Your task to perform on an android device: turn off translation in the chrome app Image 0: 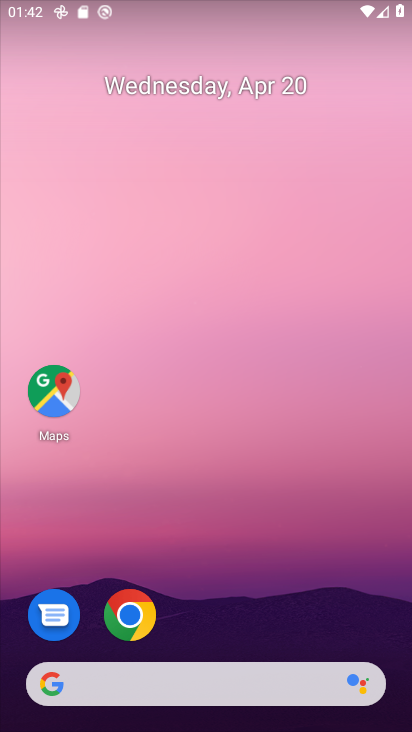
Step 0: click (128, 607)
Your task to perform on an android device: turn off translation in the chrome app Image 1: 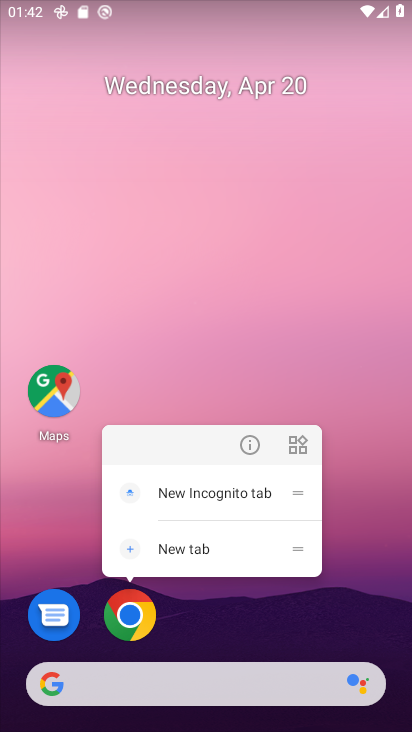
Step 1: click (128, 607)
Your task to perform on an android device: turn off translation in the chrome app Image 2: 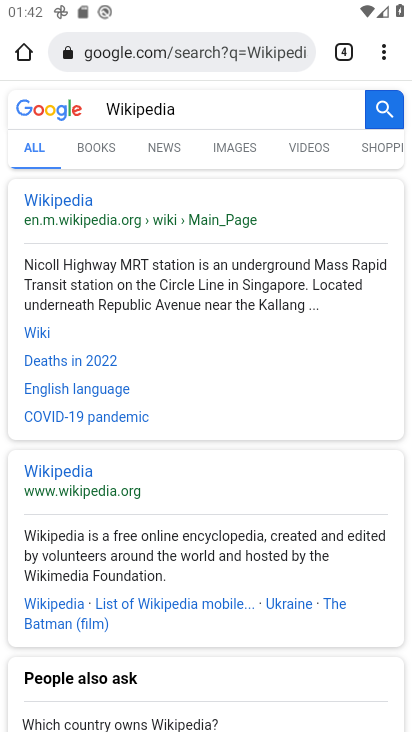
Step 2: click (349, 46)
Your task to perform on an android device: turn off translation in the chrome app Image 3: 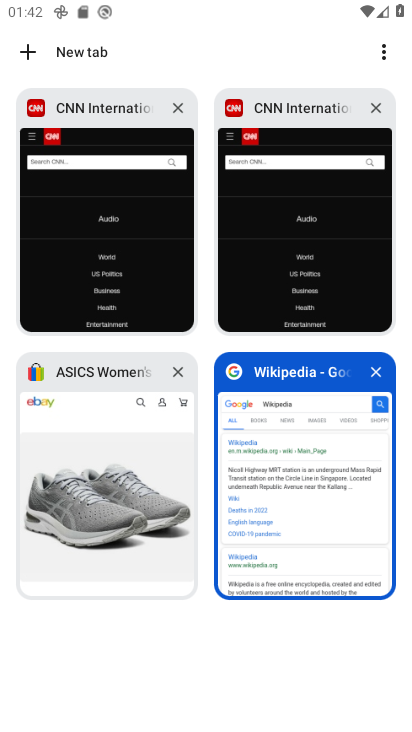
Step 3: click (369, 371)
Your task to perform on an android device: turn off translation in the chrome app Image 4: 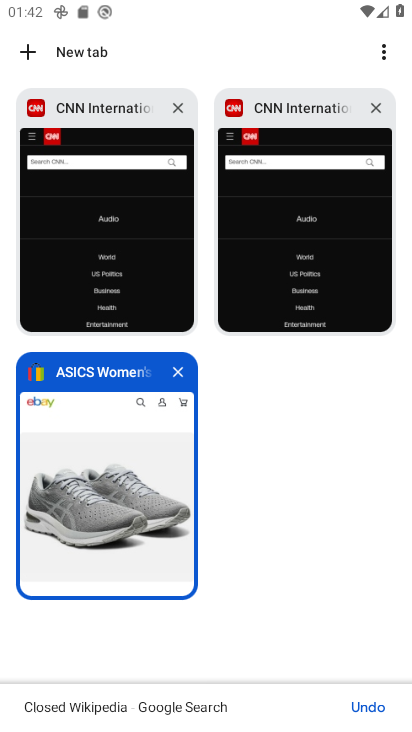
Step 4: click (180, 371)
Your task to perform on an android device: turn off translation in the chrome app Image 5: 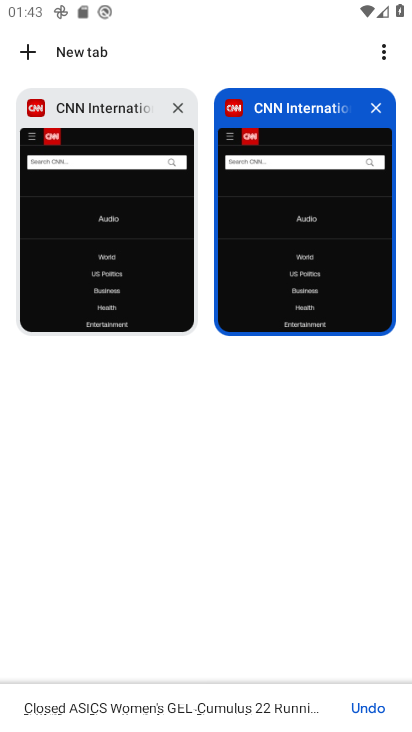
Step 5: click (377, 112)
Your task to perform on an android device: turn off translation in the chrome app Image 6: 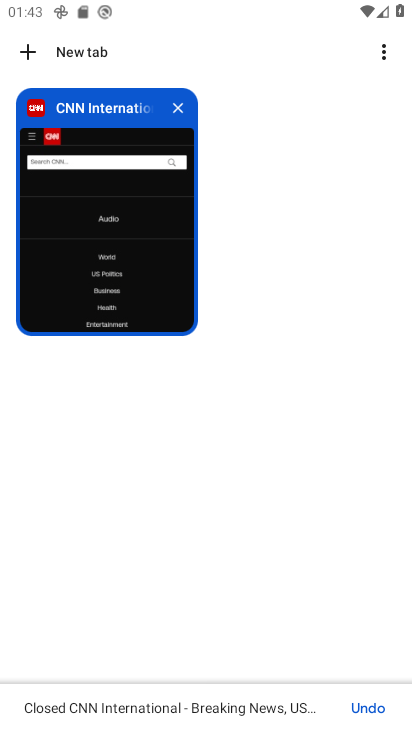
Step 6: click (175, 105)
Your task to perform on an android device: turn off translation in the chrome app Image 7: 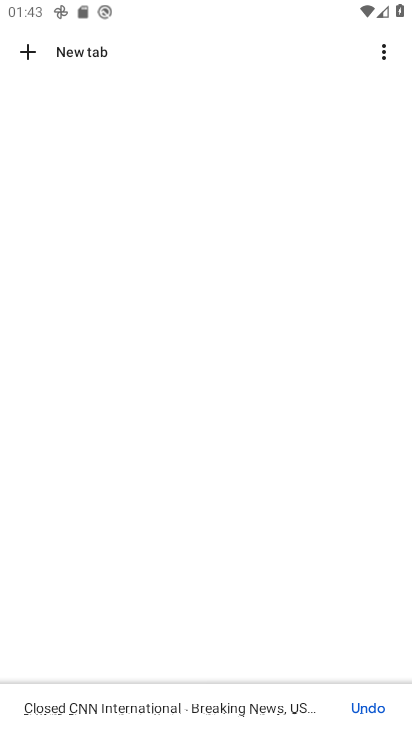
Step 7: click (28, 53)
Your task to perform on an android device: turn off translation in the chrome app Image 8: 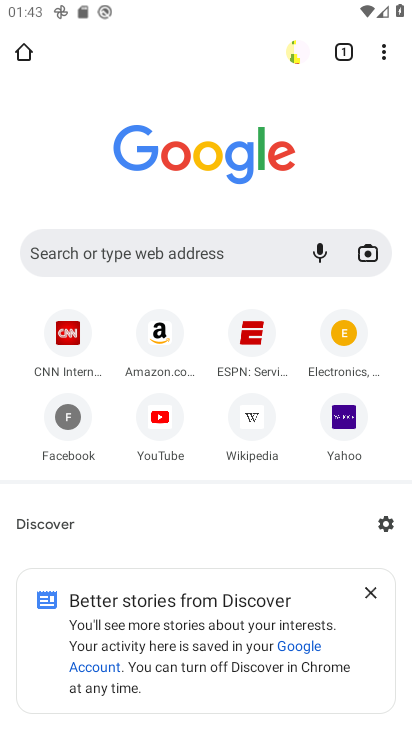
Step 8: click (171, 253)
Your task to perform on an android device: turn off translation in the chrome app Image 9: 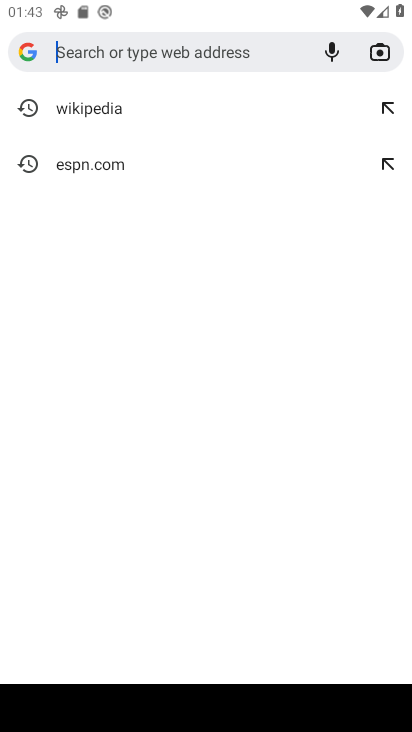
Step 9: press back button
Your task to perform on an android device: turn off translation in the chrome app Image 10: 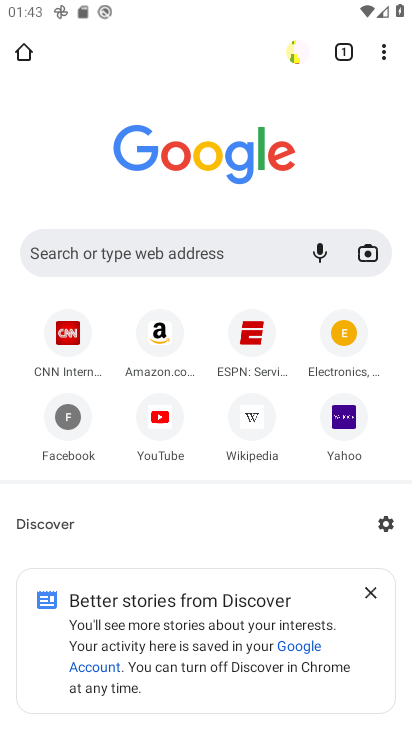
Step 10: click (381, 41)
Your task to perform on an android device: turn off translation in the chrome app Image 11: 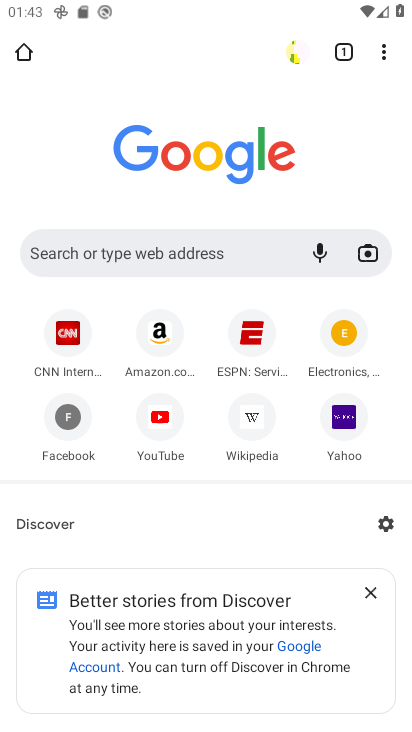
Step 11: click (381, 46)
Your task to perform on an android device: turn off translation in the chrome app Image 12: 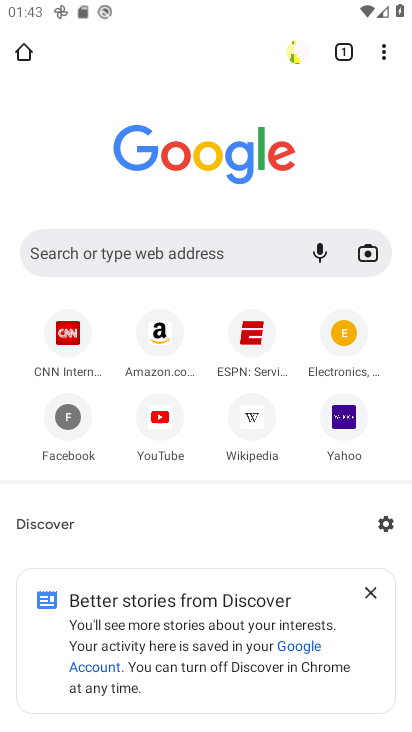
Step 12: click (381, 52)
Your task to perform on an android device: turn off translation in the chrome app Image 13: 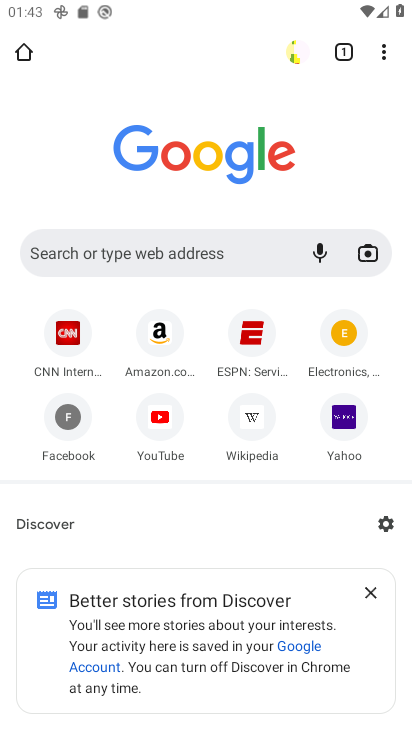
Step 13: click (381, 52)
Your task to perform on an android device: turn off translation in the chrome app Image 14: 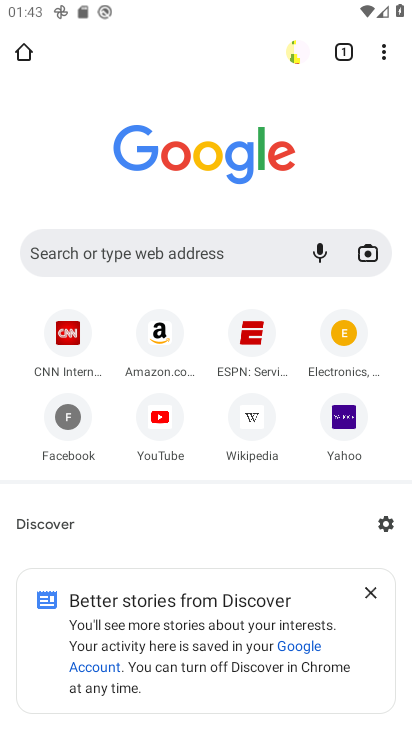
Step 14: click (381, 52)
Your task to perform on an android device: turn off translation in the chrome app Image 15: 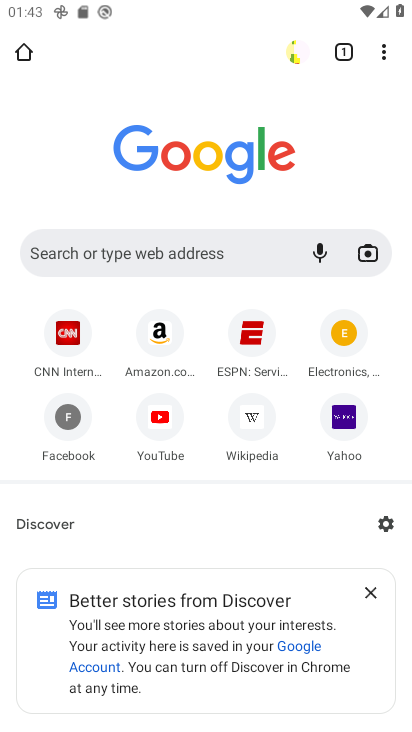
Step 15: click (381, 52)
Your task to perform on an android device: turn off translation in the chrome app Image 16: 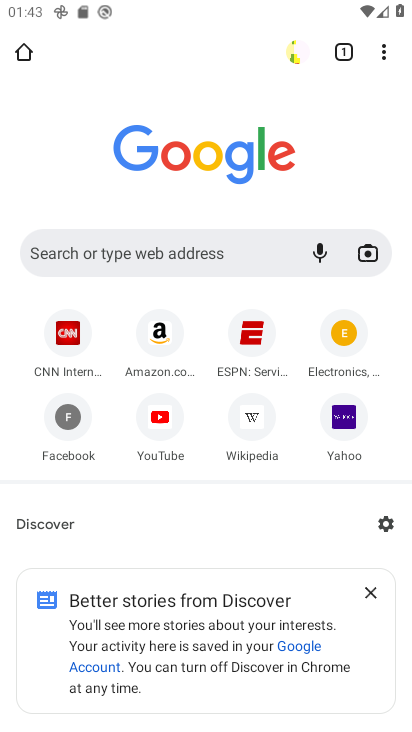
Step 16: click (381, 52)
Your task to perform on an android device: turn off translation in the chrome app Image 17: 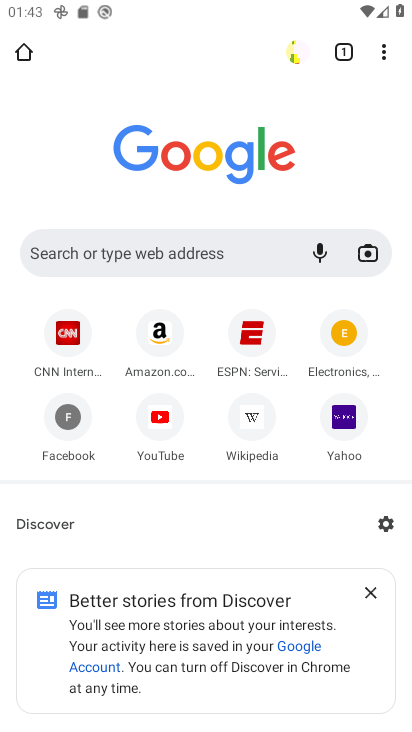
Step 17: click (381, 52)
Your task to perform on an android device: turn off translation in the chrome app Image 18: 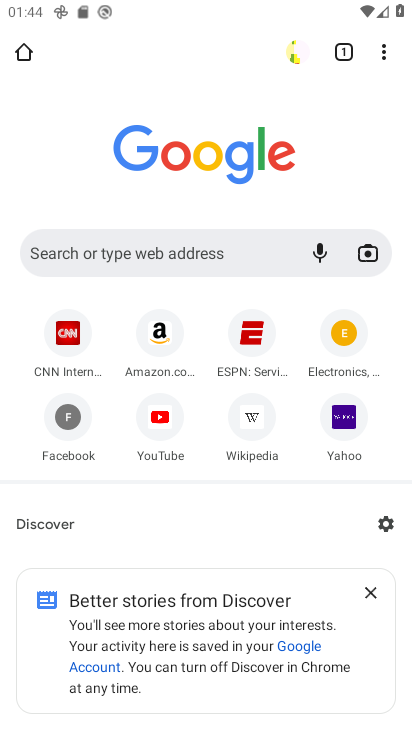
Step 18: click (378, 47)
Your task to perform on an android device: turn off translation in the chrome app Image 19: 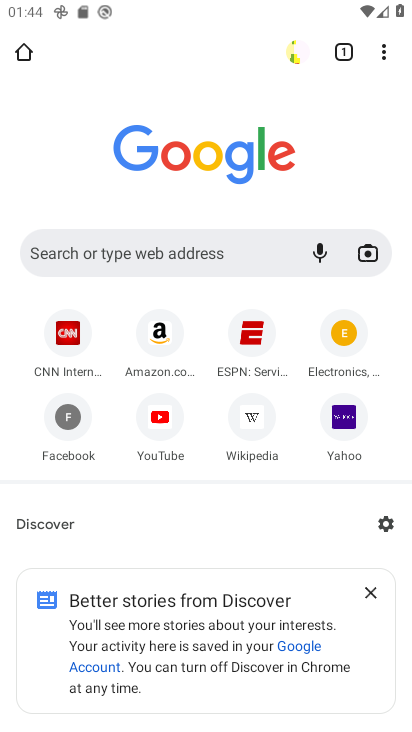
Step 19: click (378, 47)
Your task to perform on an android device: turn off translation in the chrome app Image 20: 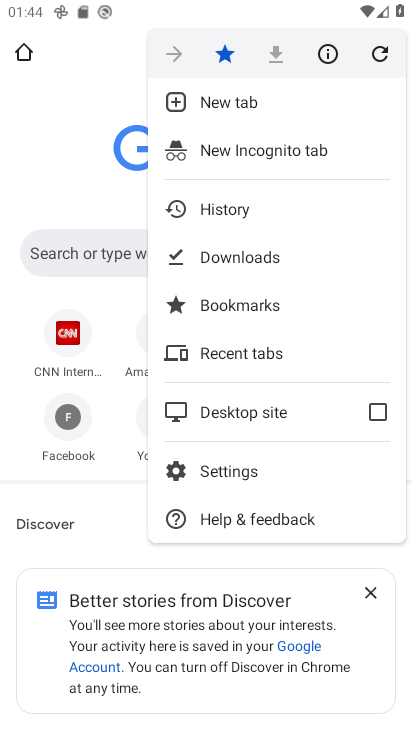
Step 20: click (219, 470)
Your task to perform on an android device: turn off translation in the chrome app Image 21: 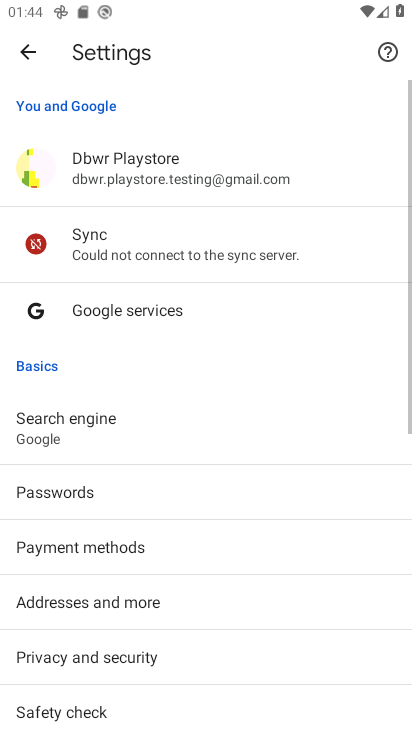
Step 21: drag from (234, 696) to (268, 204)
Your task to perform on an android device: turn off translation in the chrome app Image 22: 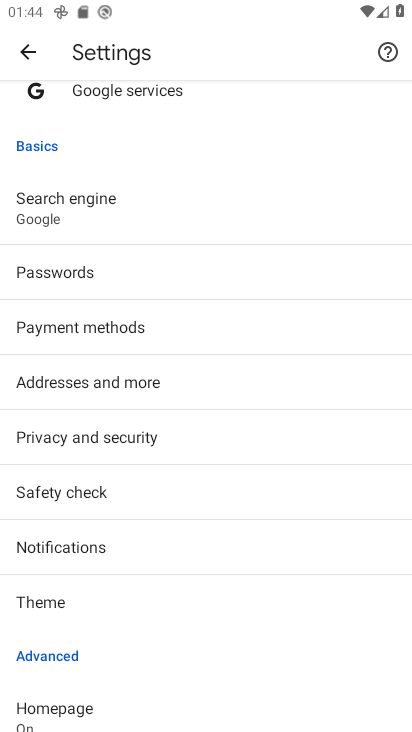
Step 22: drag from (286, 678) to (272, 215)
Your task to perform on an android device: turn off translation in the chrome app Image 23: 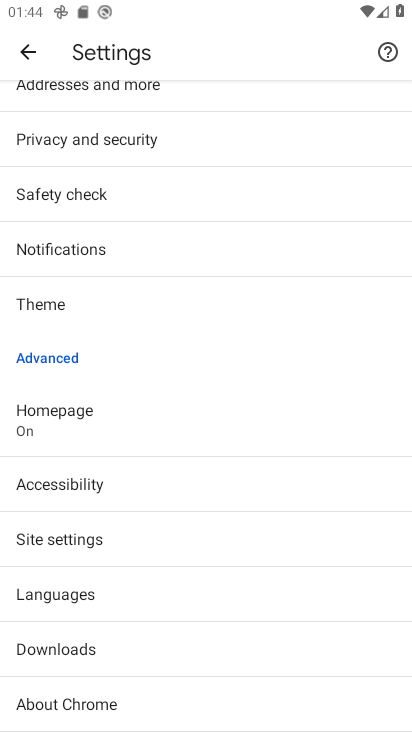
Step 23: drag from (266, 658) to (294, 262)
Your task to perform on an android device: turn off translation in the chrome app Image 24: 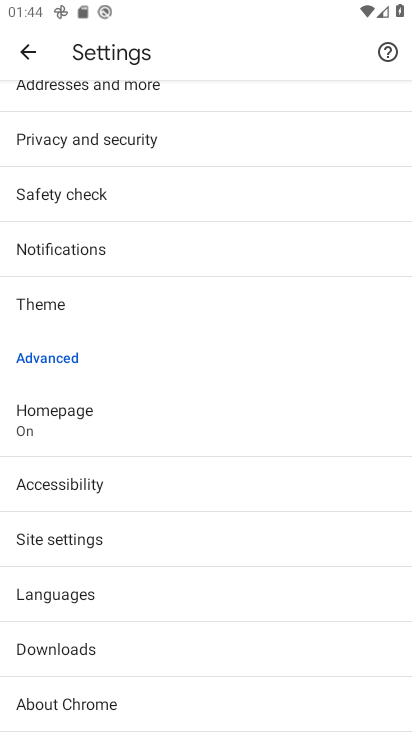
Step 24: click (72, 594)
Your task to perform on an android device: turn off translation in the chrome app Image 25: 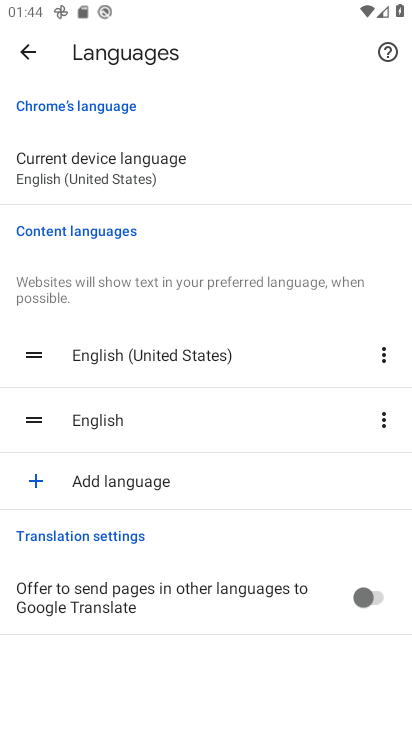
Step 25: task complete